Your task to perform on an android device: toggle pop-ups in chrome Image 0: 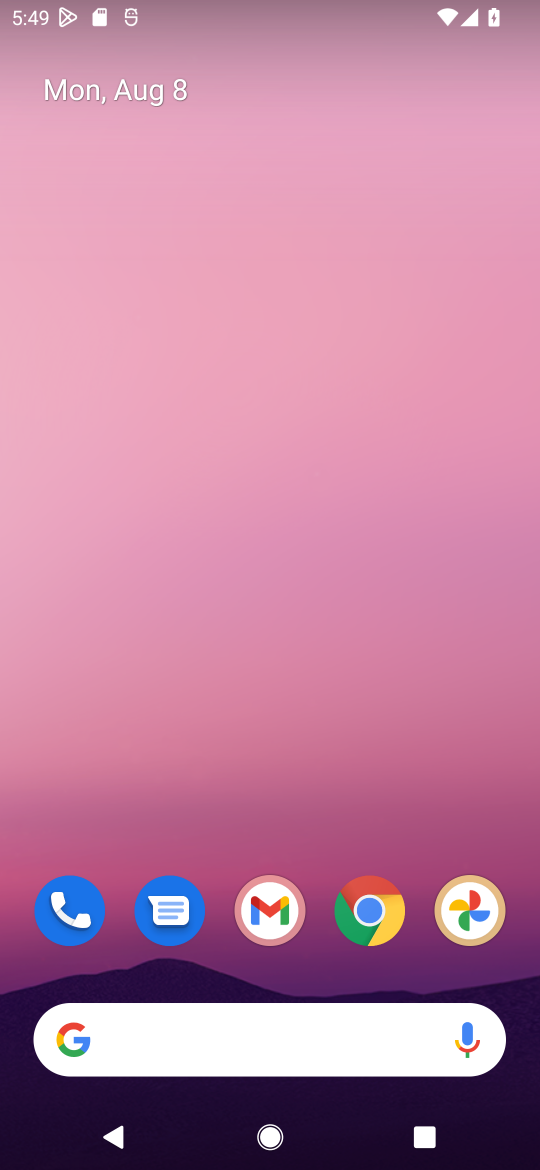
Step 0: click (365, 922)
Your task to perform on an android device: toggle pop-ups in chrome Image 1: 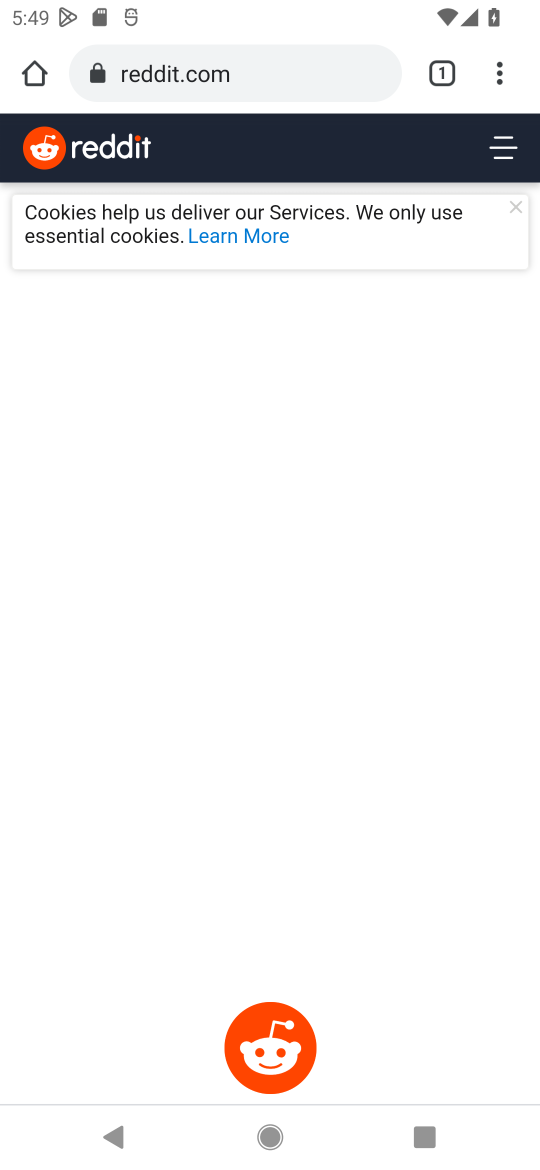
Step 1: click (497, 76)
Your task to perform on an android device: toggle pop-ups in chrome Image 2: 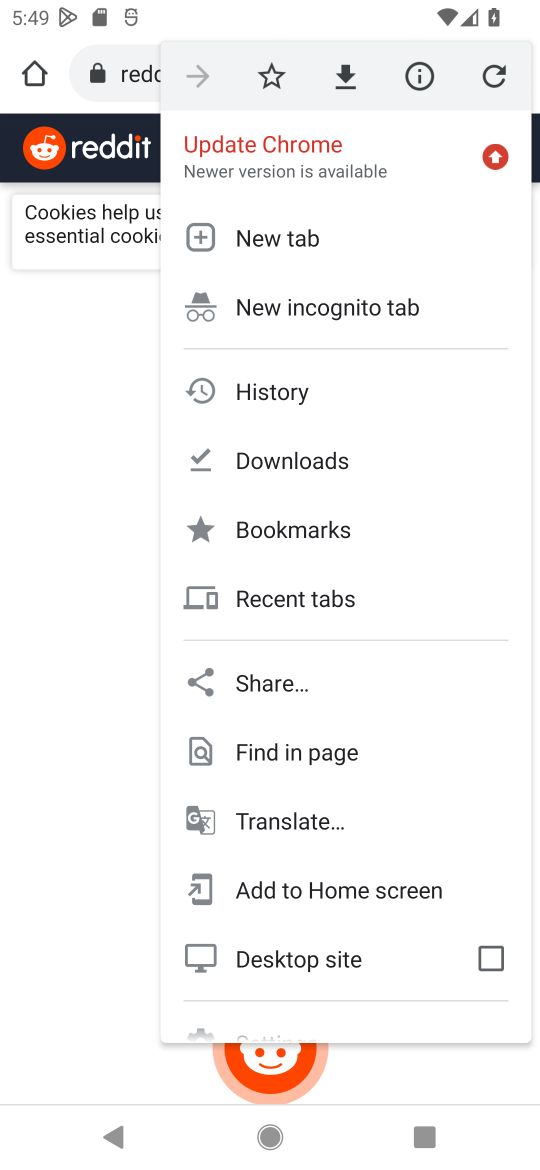
Step 2: drag from (408, 776) to (376, 436)
Your task to perform on an android device: toggle pop-ups in chrome Image 3: 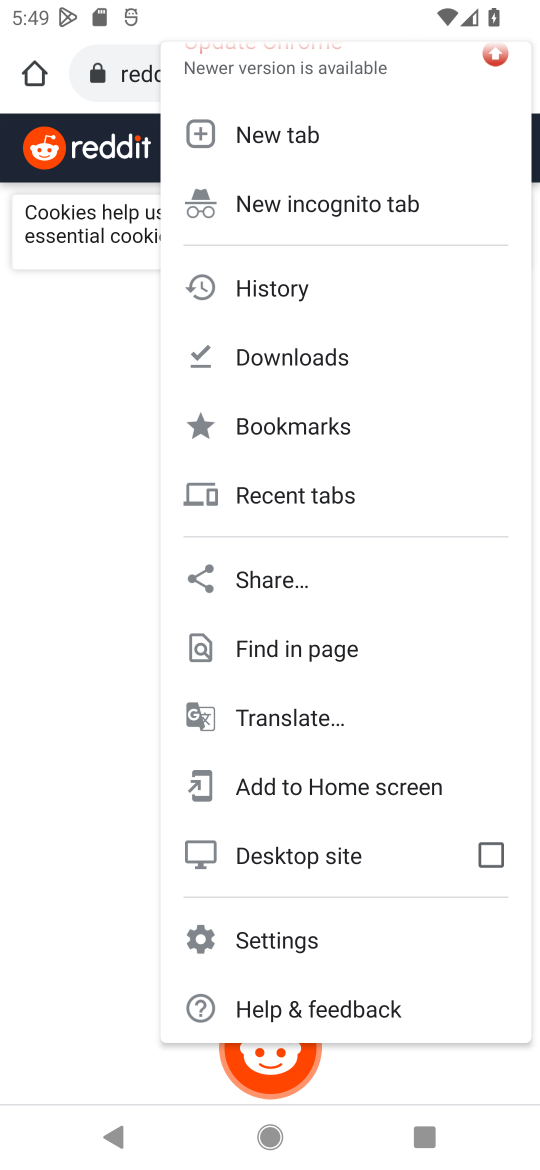
Step 3: click (296, 947)
Your task to perform on an android device: toggle pop-ups in chrome Image 4: 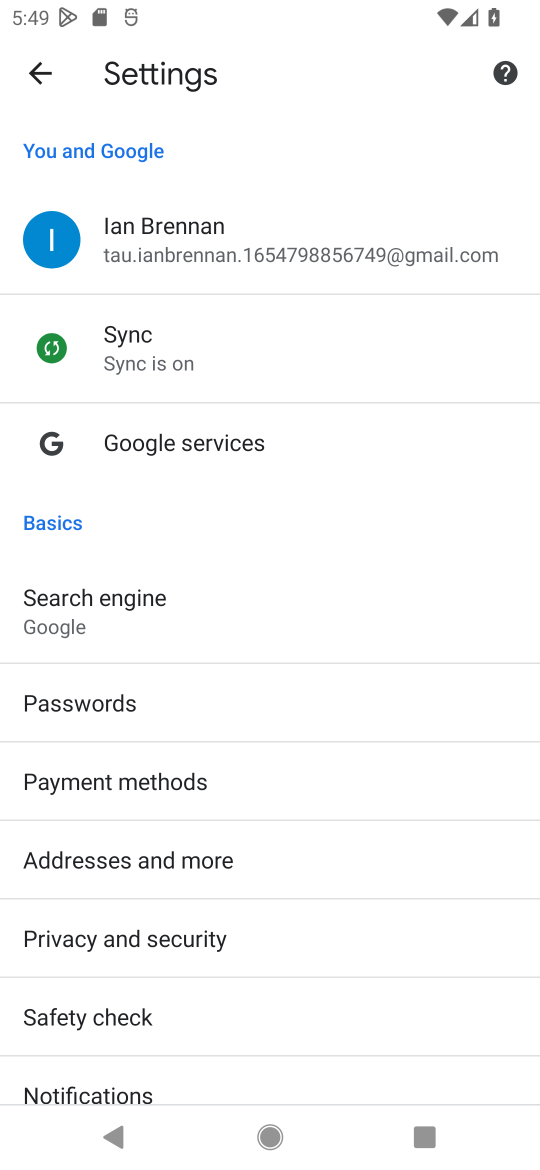
Step 4: drag from (342, 765) to (289, 471)
Your task to perform on an android device: toggle pop-ups in chrome Image 5: 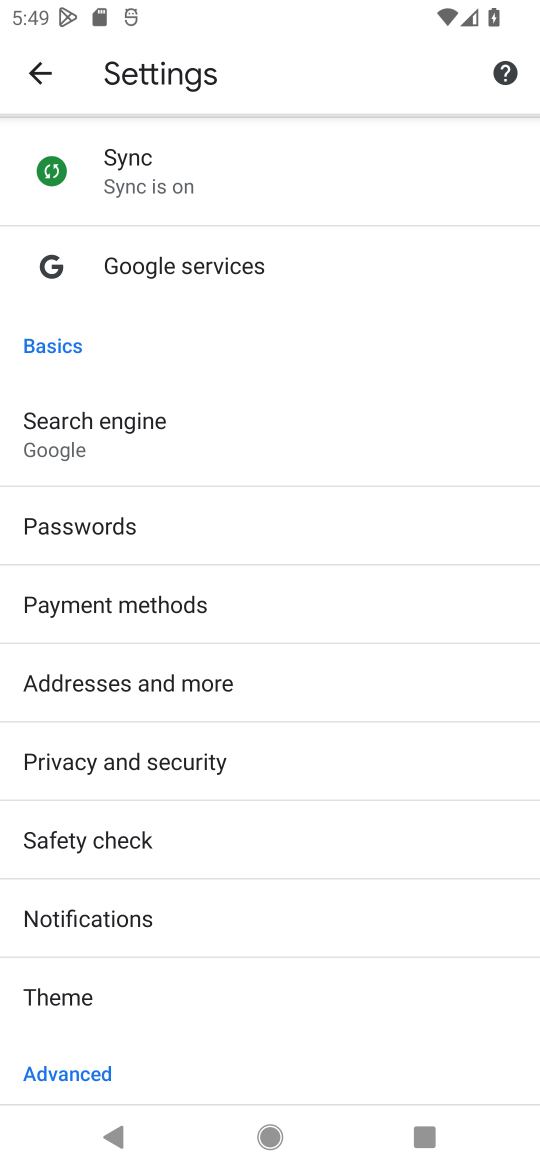
Step 5: drag from (333, 838) to (317, 507)
Your task to perform on an android device: toggle pop-ups in chrome Image 6: 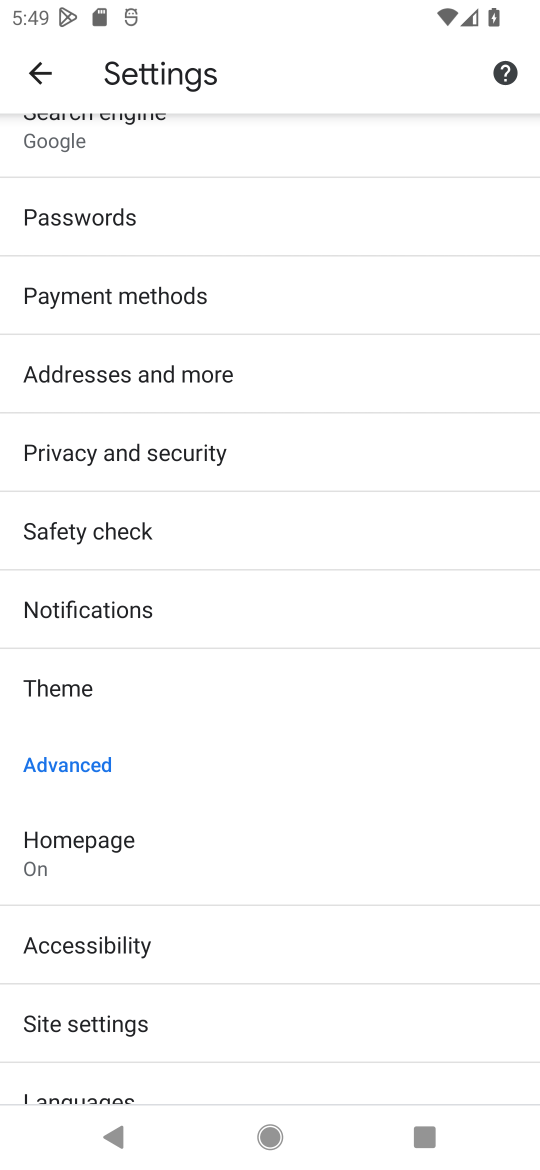
Step 6: drag from (405, 754) to (400, 517)
Your task to perform on an android device: toggle pop-ups in chrome Image 7: 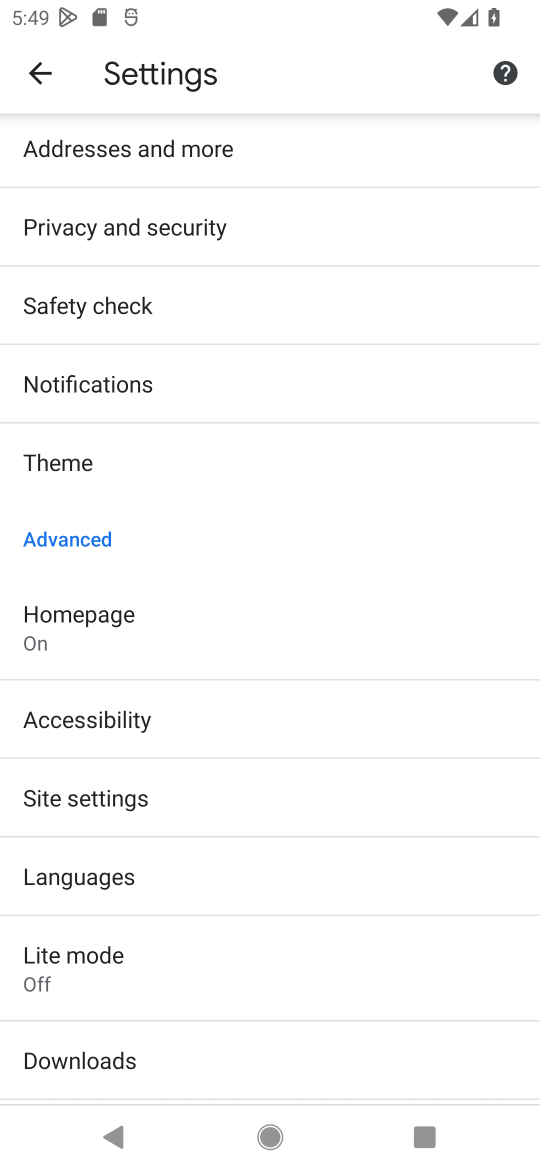
Step 7: click (61, 803)
Your task to perform on an android device: toggle pop-ups in chrome Image 8: 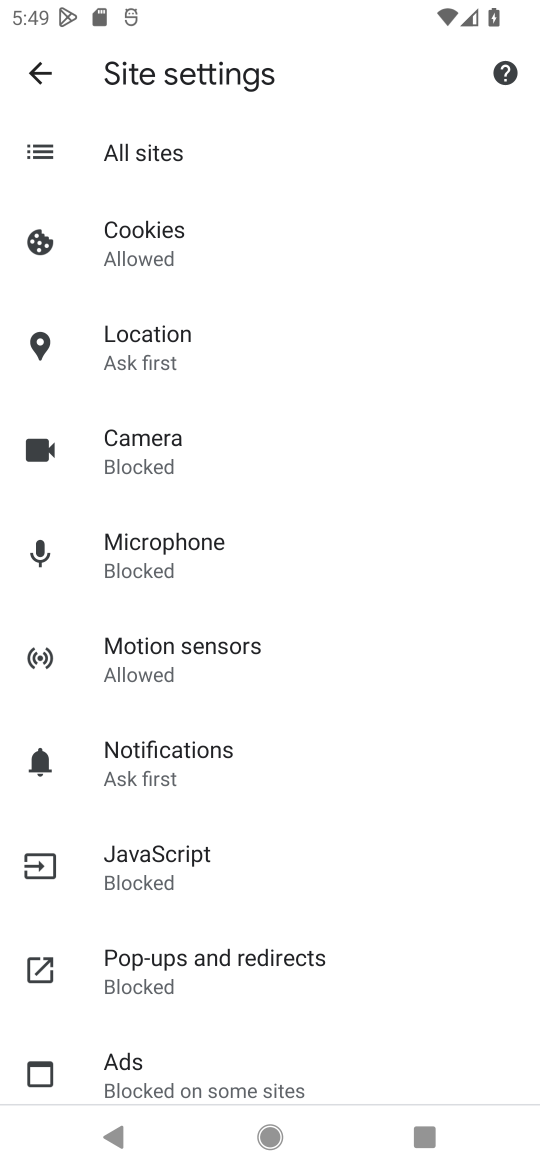
Step 8: drag from (439, 769) to (450, 622)
Your task to perform on an android device: toggle pop-ups in chrome Image 9: 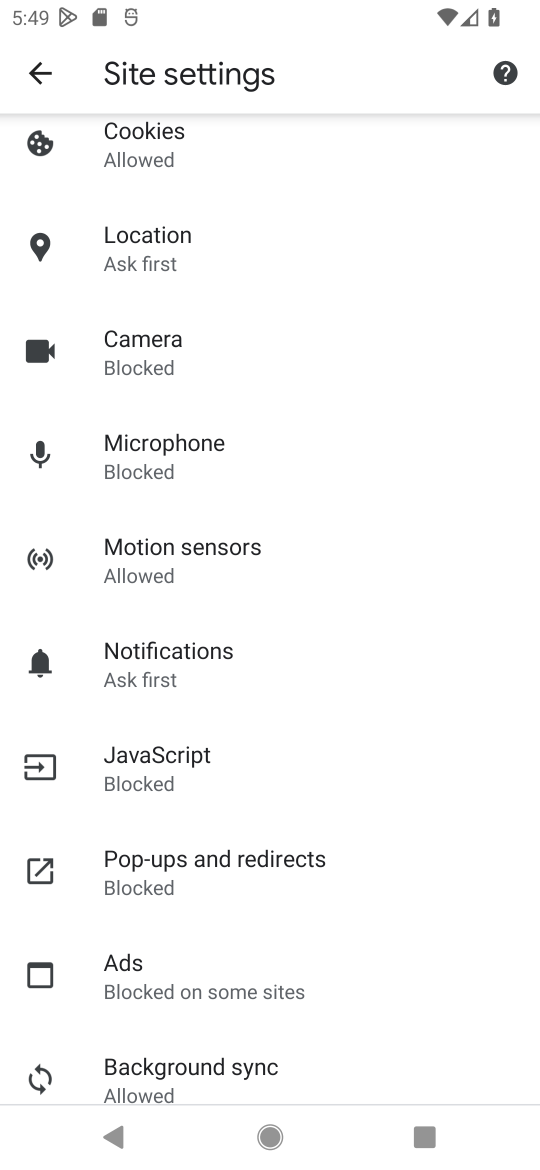
Step 9: click (199, 854)
Your task to perform on an android device: toggle pop-ups in chrome Image 10: 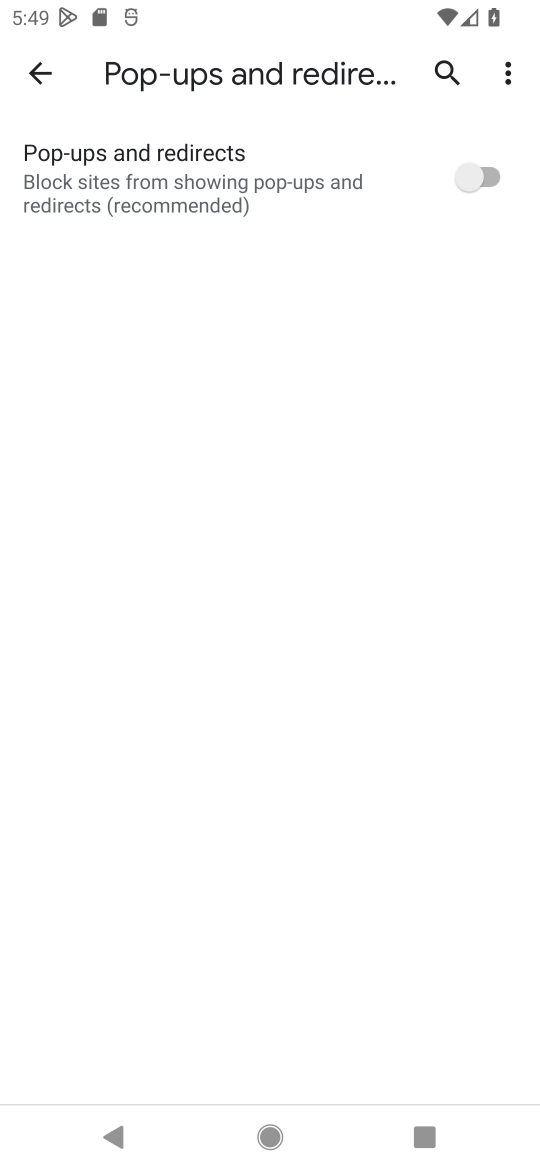
Step 10: click (471, 184)
Your task to perform on an android device: toggle pop-ups in chrome Image 11: 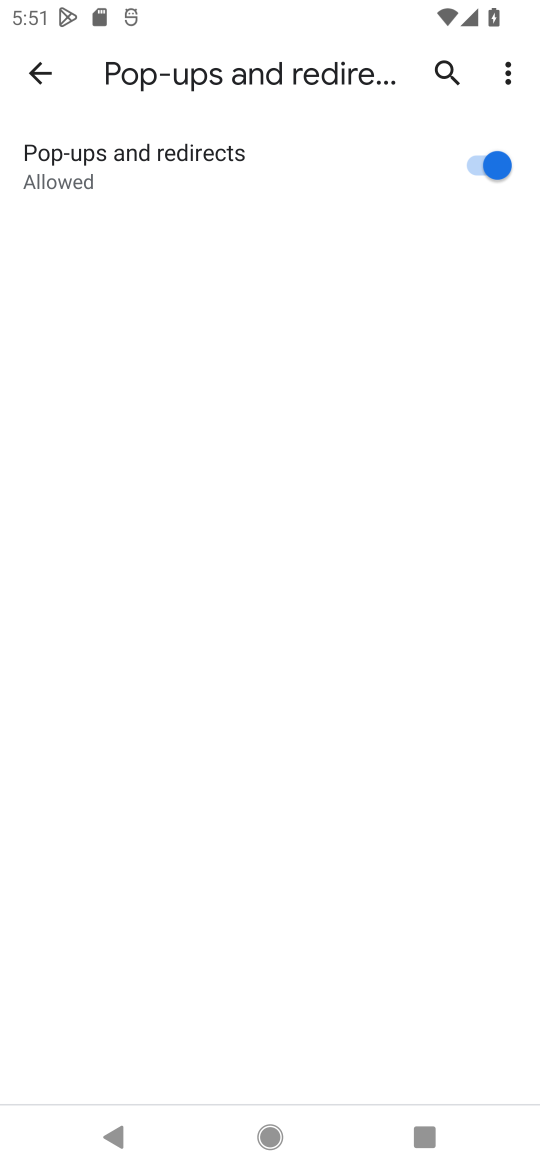
Step 11: task complete